Your task to perform on an android device: Search for vegetarian restaurants on Maps Image 0: 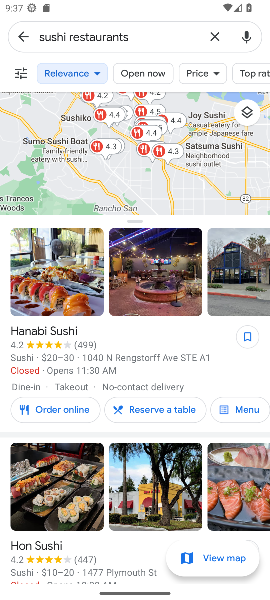
Step 0: press home button
Your task to perform on an android device: Search for vegetarian restaurants on Maps Image 1: 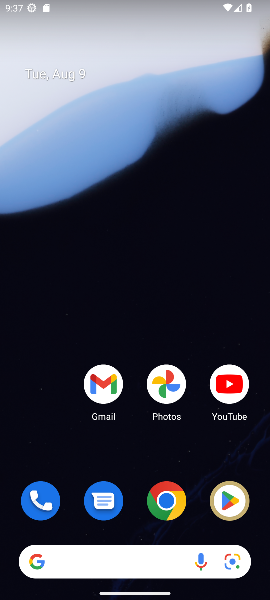
Step 1: drag from (129, 494) to (156, 127)
Your task to perform on an android device: Search for vegetarian restaurants on Maps Image 2: 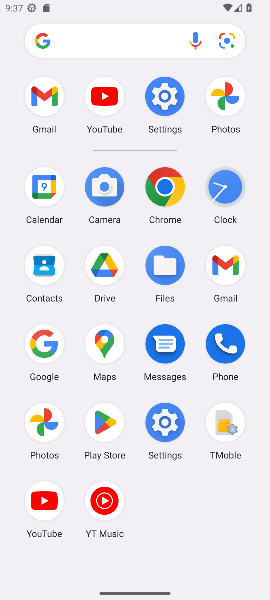
Step 2: click (102, 340)
Your task to perform on an android device: Search for vegetarian restaurants on Maps Image 3: 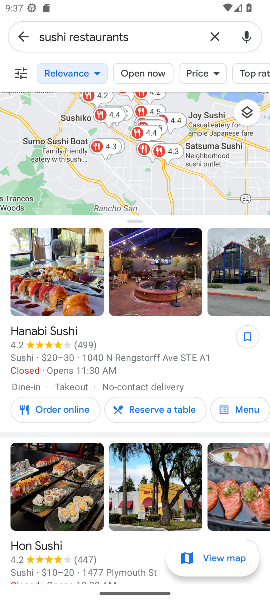
Step 3: click (21, 47)
Your task to perform on an android device: Search for vegetarian restaurants on Maps Image 4: 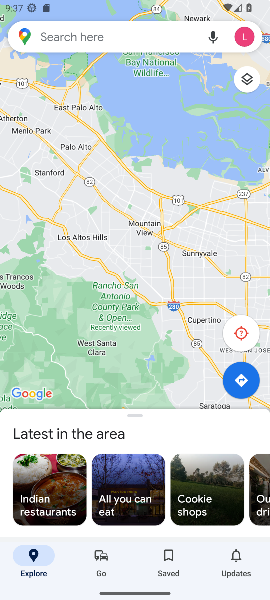
Step 4: click (87, 39)
Your task to perform on an android device: Search for vegetarian restaurants on Maps Image 5: 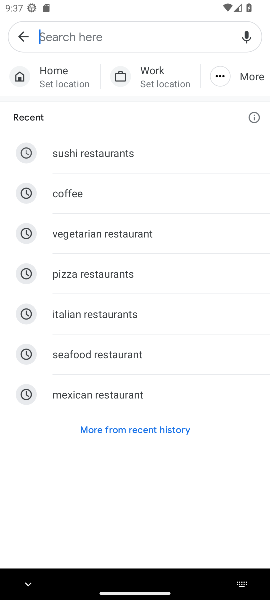
Step 5: type "vegetarian restaurants"
Your task to perform on an android device: Search for vegetarian restaurants on Maps Image 6: 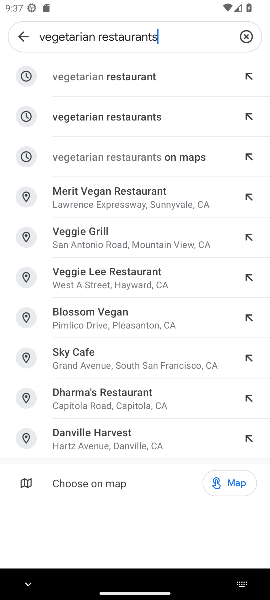
Step 6: click (105, 77)
Your task to perform on an android device: Search for vegetarian restaurants on Maps Image 7: 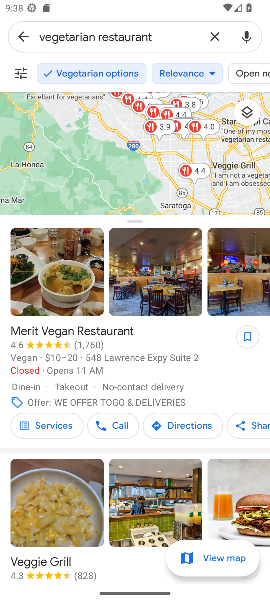
Step 7: task complete